Your task to perform on an android device: Open calendar and show me the second week of next month Image 0: 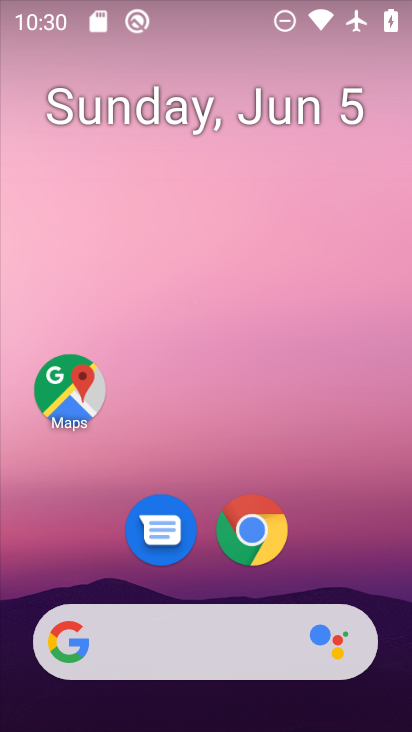
Step 0: drag from (394, 631) to (331, 64)
Your task to perform on an android device: Open calendar and show me the second week of next month Image 1: 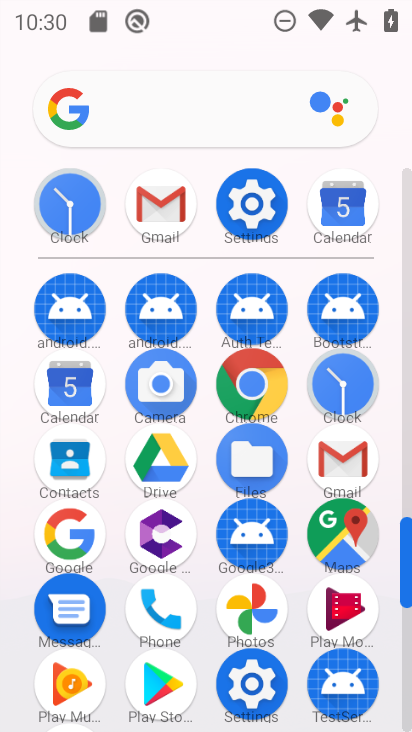
Step 1: click (408, 693)
Your task to perform on an android device: Open calendar and show me the second week of next month Image 2: 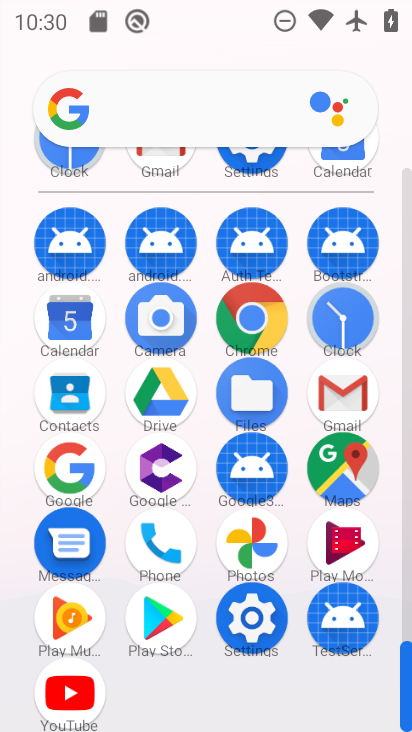
Step 2: click (70, 320)
Your task to perform on an android device: Open calendar and show me the second week of next month Image 3: 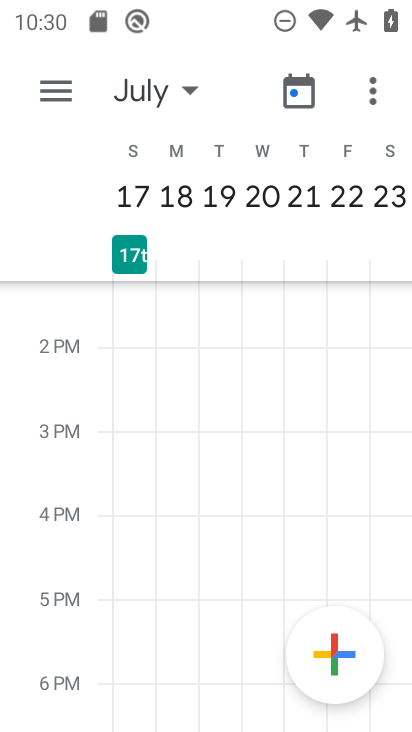
Step 3: click (193, 94)
Your task to perform on an android device: Open calendar and show me the second week of next month Image 4: 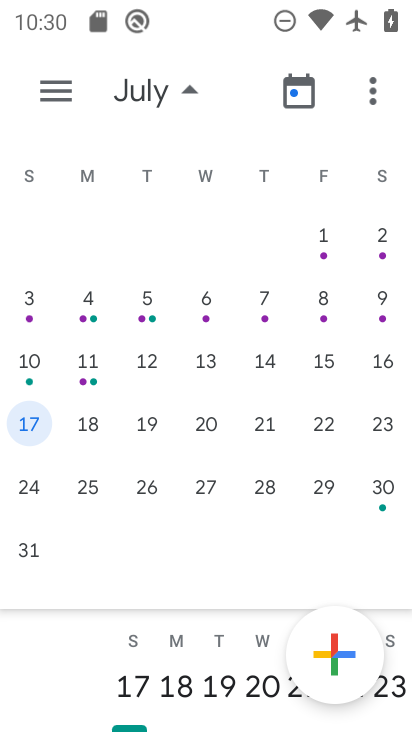
Step 4: click (33, 362)
Your task to perform on an android device: Open calendar and show me the second week of next month Image 5: 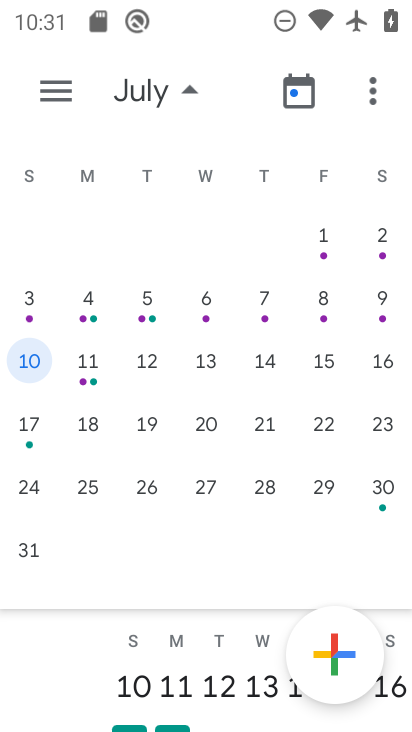
Step 5: drag from (213, 597) to (178, 160)
Your task to perform on an android device: Open calendar and show me the second week of next month Image 6: 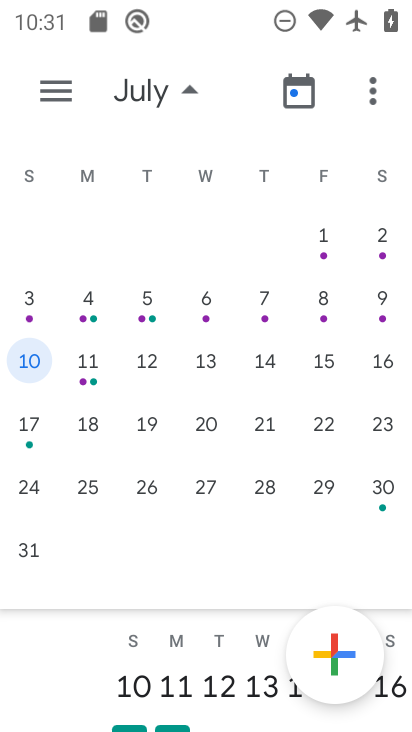
Step 6: click (187, 90)
Your task to perform on an android device: Open calendar and show me the second week of next month Image 7: 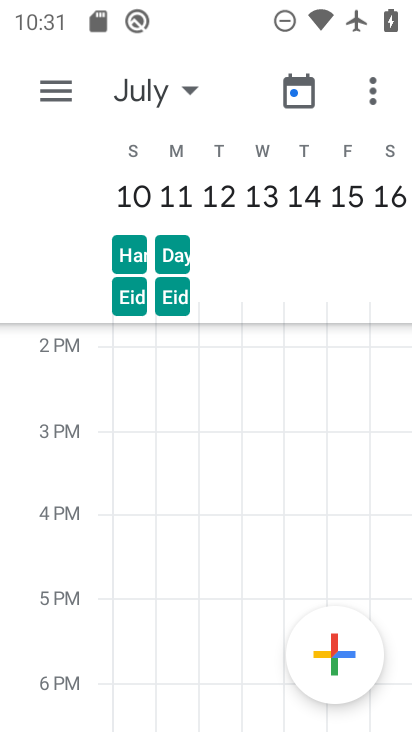
Step 7: task complete